Your task to perform on an android device: turn off wifi Image 0: 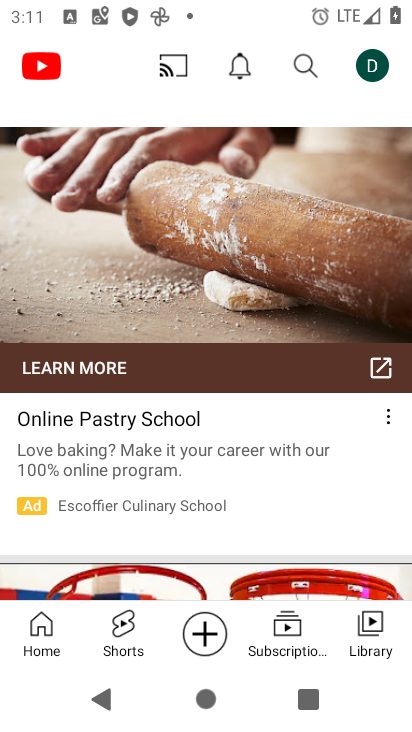
Step 0: press home button
Your task to perform on an android device: turn off wifi Image 1: 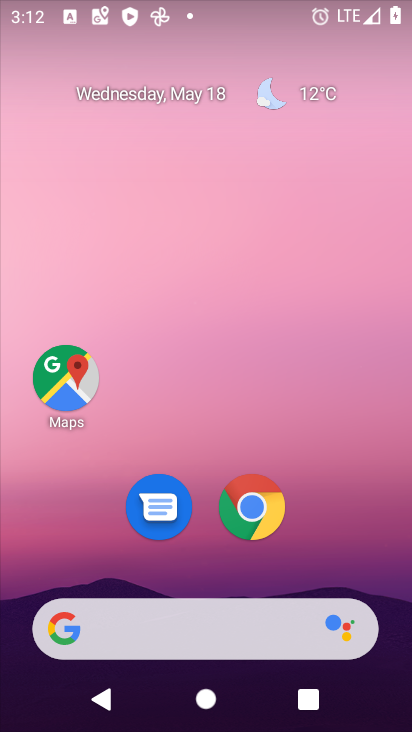
Step 1: drag from (390, 613) to (303, 108)
Your task to perform on an android device: turn off wifi Image 2: 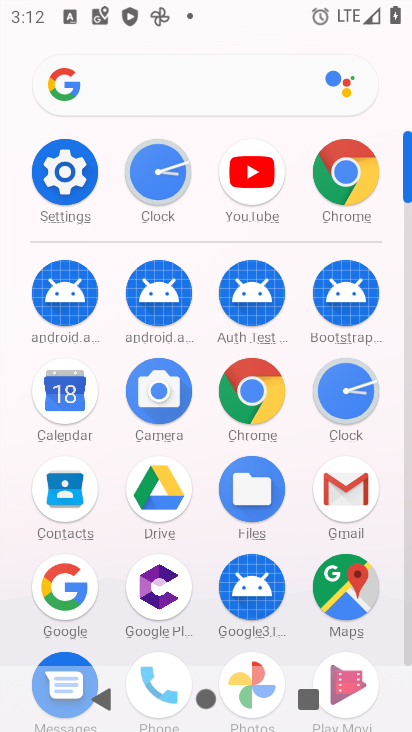
Step 2: click (406, 654)
Your task to perform on an android device: turn off wifi Image 3: 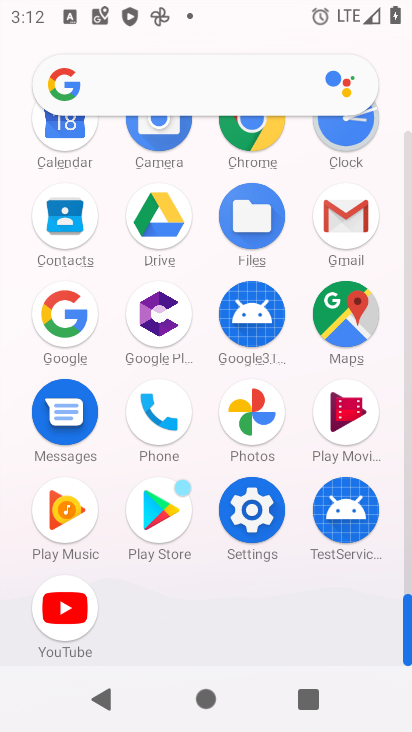
Step 3: click (249, 509)
Your task to perform on an android device: turn off wifi Image 4: 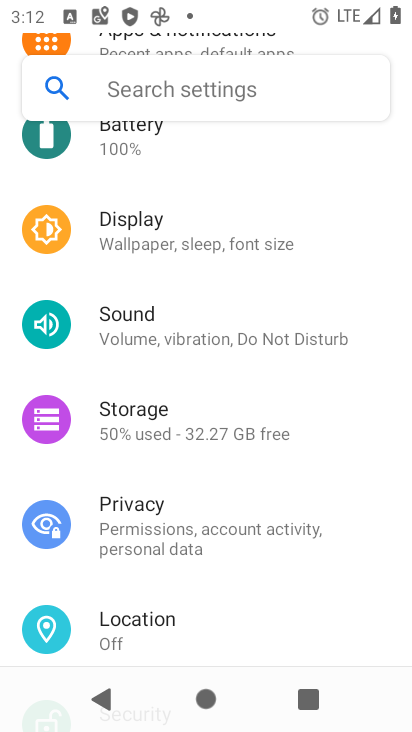
Step 4: drag from (334, 139) to (306, 429)
Your task to perform on an android device: turn off wifi Image 5: 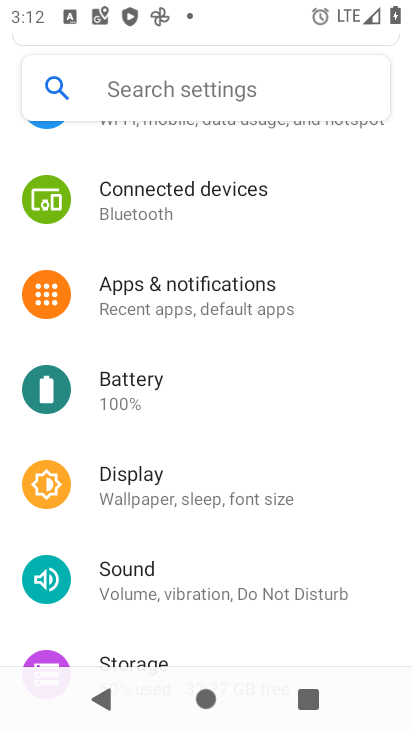
Step 5: drag from (330, 213) to (350, 566)
Your task to perform on an android device: turn off wifi Image 6: 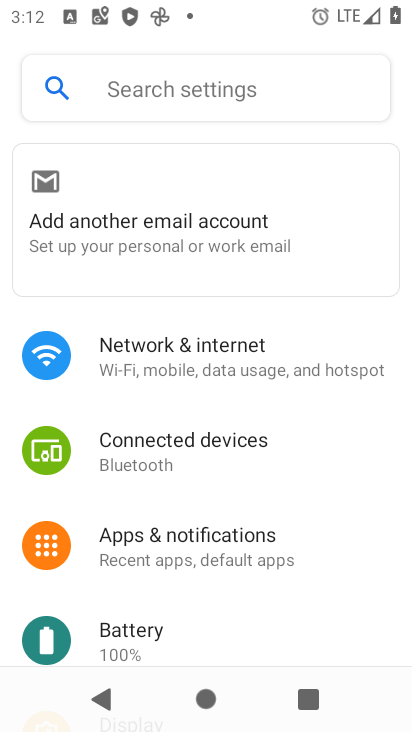
Step 6: click (165, 354)
Your task to perform on an android device: turn off wifi Image 7: 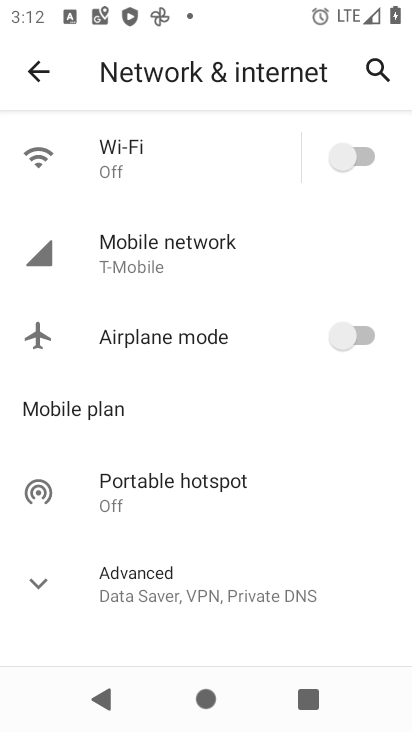
Step 7: task complete